Your task to perform on an android device: Is it going to rain today? Image 0: 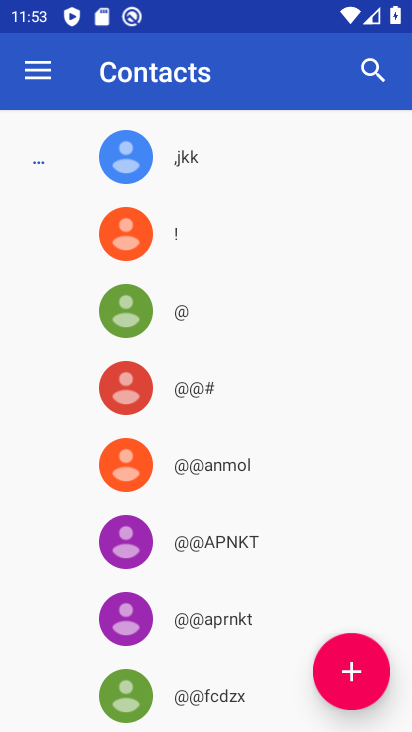
Step 0: press home button
Your task to perform on an android device: Is it going to rain today? Image 1: 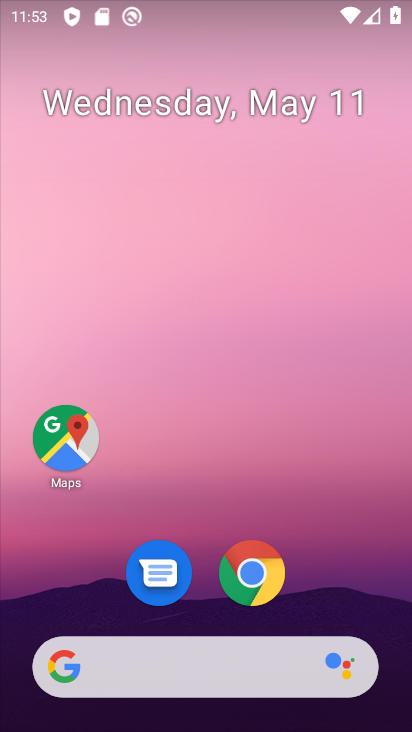
Step 1: click (246, 592)
Your task to perform on an android device: Is it going to rain today? Image 2: 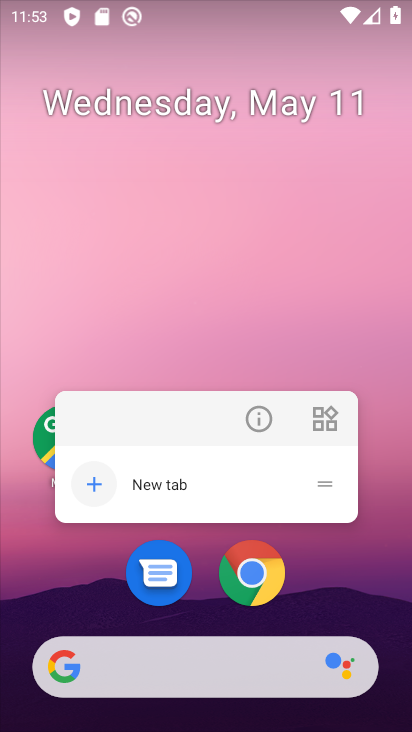
Step 2: click (260, 587)
Your task to perform on an android device: Is it going to rain today? Image 3: 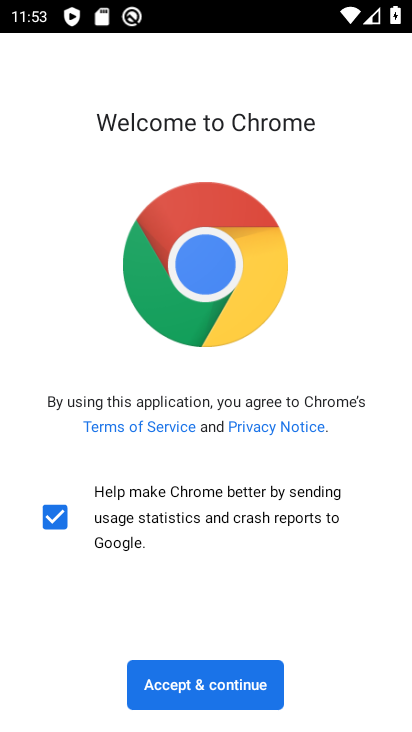
Step 3: click (198, 679)
Your task to perform on an android device: Is it going to rain today? Image 4: 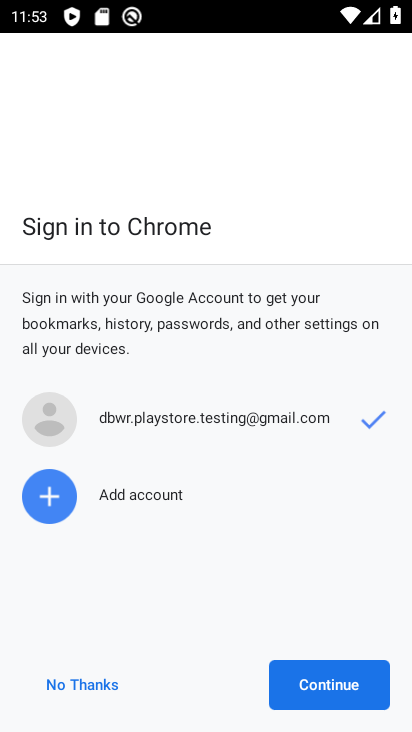
Step 4: click (321, 691)
Your task to perform on an android device: Is it going to rain today? Image 5: 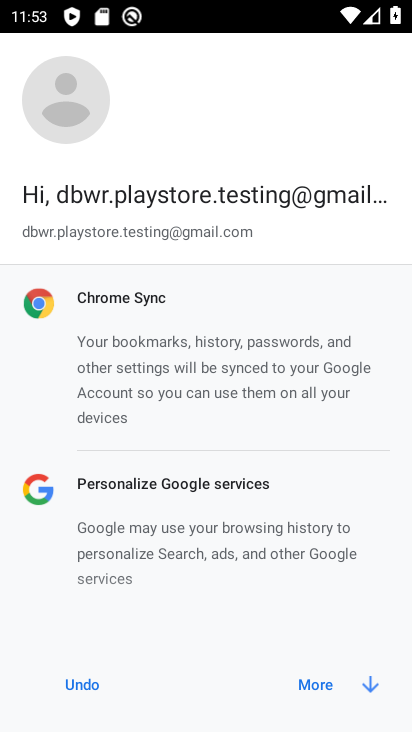
Step 5: click (321, 691)
Your task to perform on an android device: Is it going to rain today? Image 6: 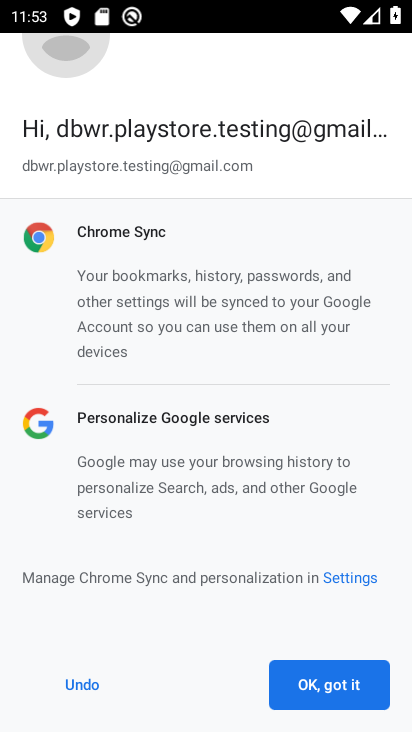
Step 6: click (321, 691)
Your task to perform on an android device: Is it going to rain today? Image 7: 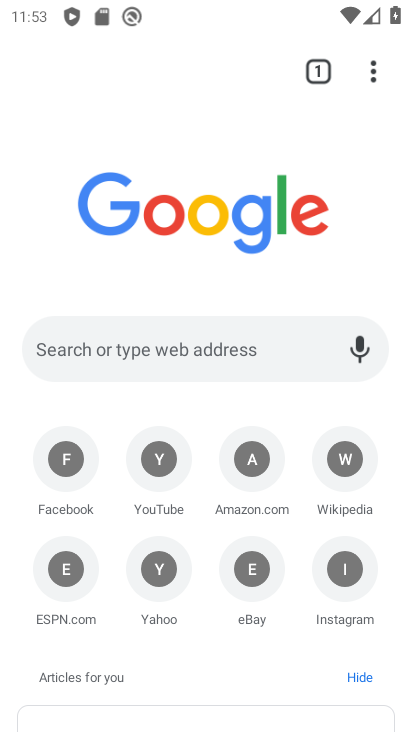
Step 7: click (224, 359)
Your task to perform on an android device: Is it going to rain today? Image 8: 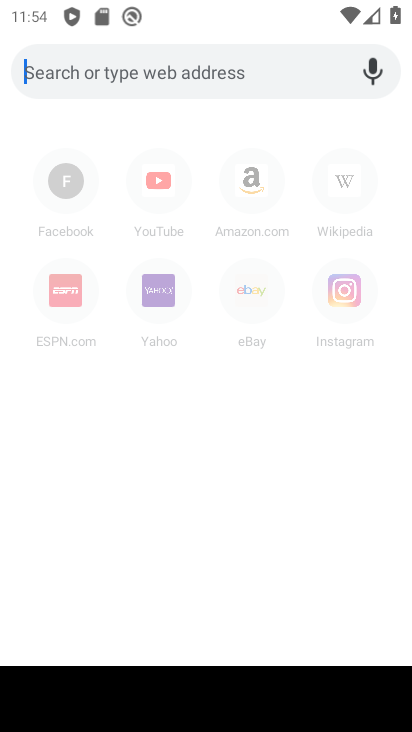
Step 8: type "is it going to rain today"
Your task to perform on an android device: Is it going to rain today? Image 9: 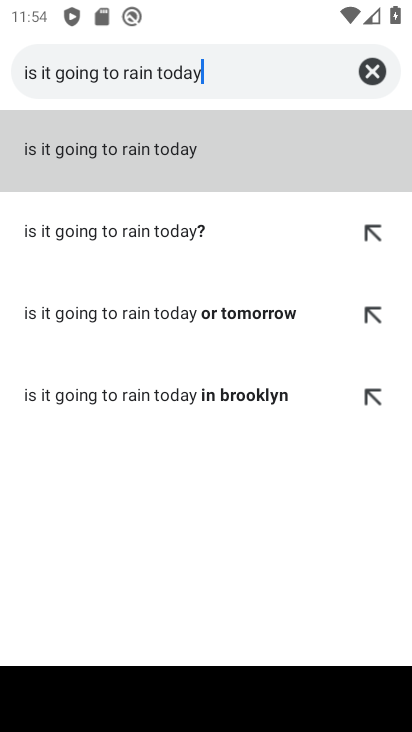
Step 9: click (158, 161)
Your task to perform on an android device: Is it going to rain today? Image 10: 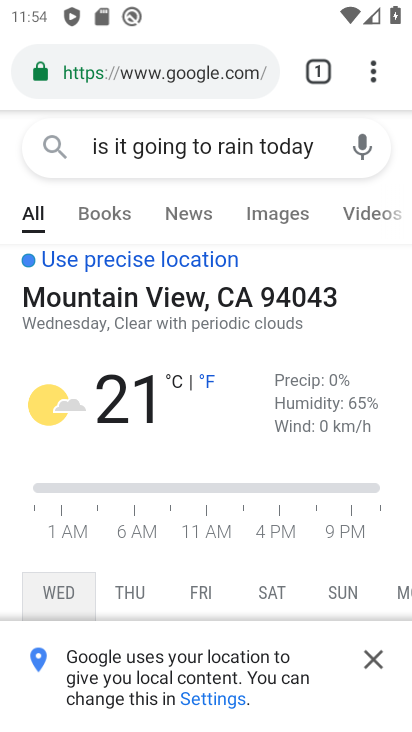
Step 10: task complete